Your task to perform on an android device: What's the news about the US economy? Image 0: 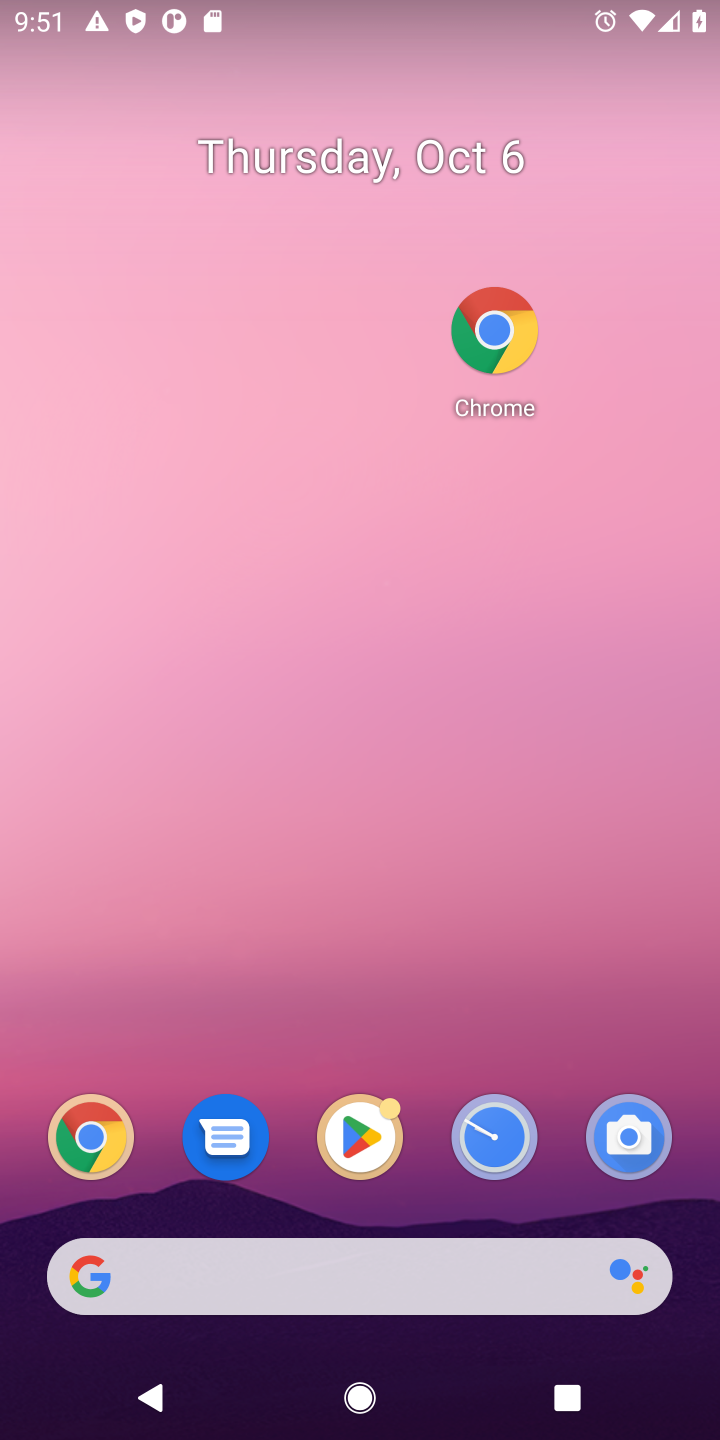
Step 0: click (194, 1265)
Your task to perform on an android device: What's the news about the US economy? Image 1: 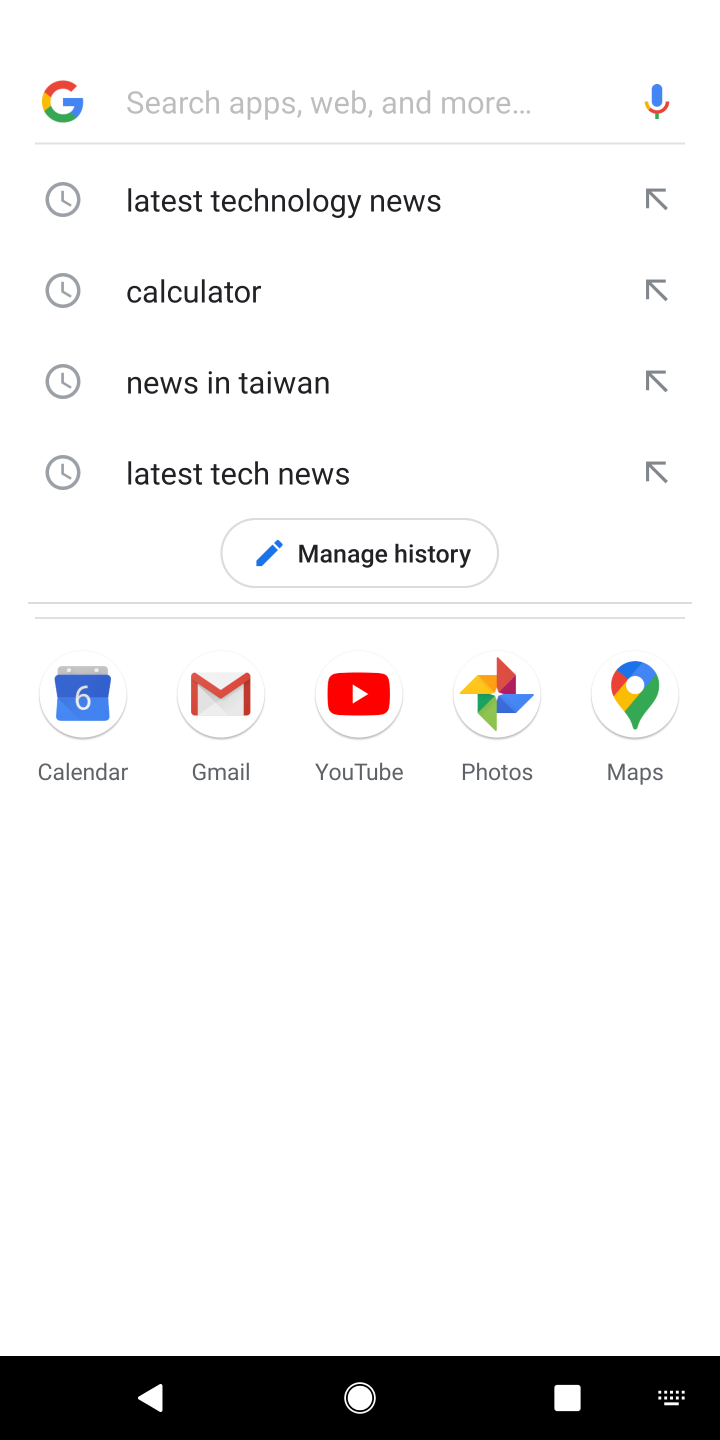
Step 1: type "news about the US economy"
Your task to perform on an android device: What's the news about the US economy? Image 2: 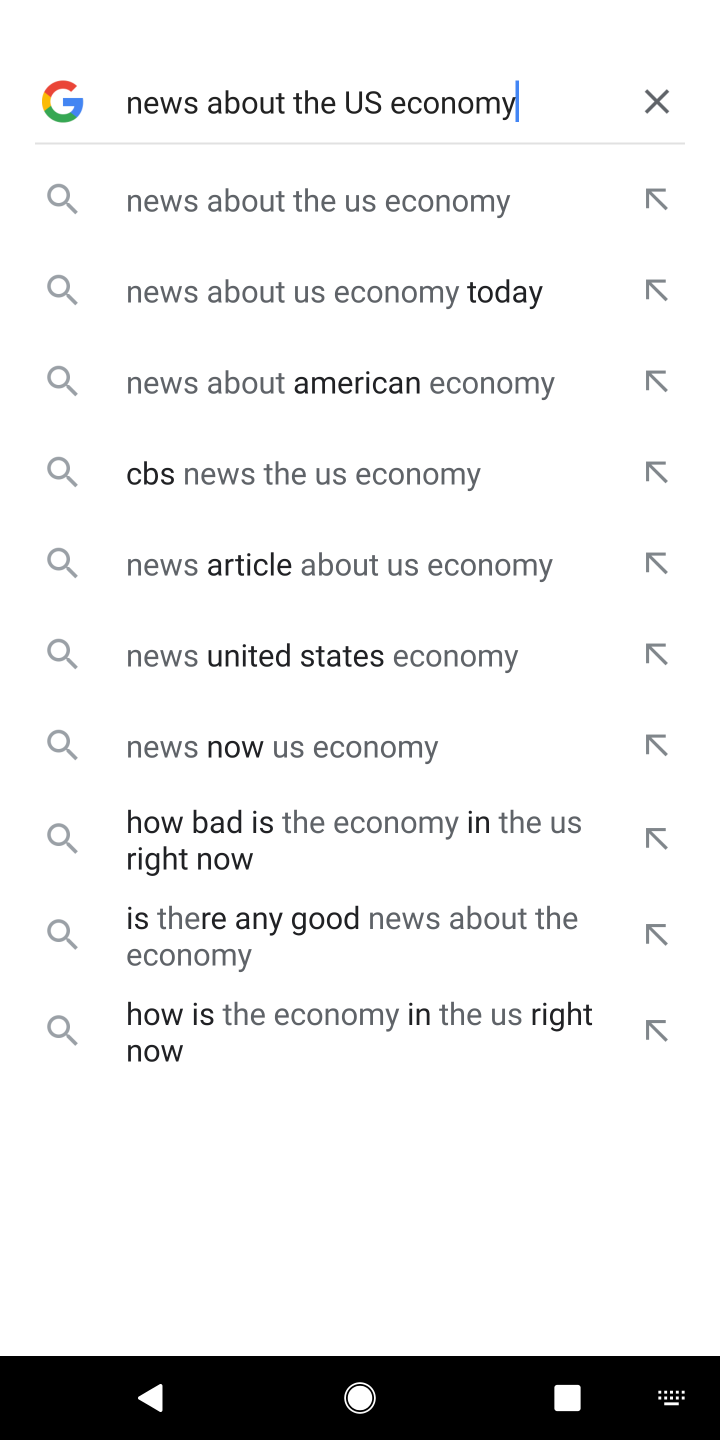
Step 2: click (375, 206)
Your task to perform on an android device: What's the news about the US economy? Image 3: 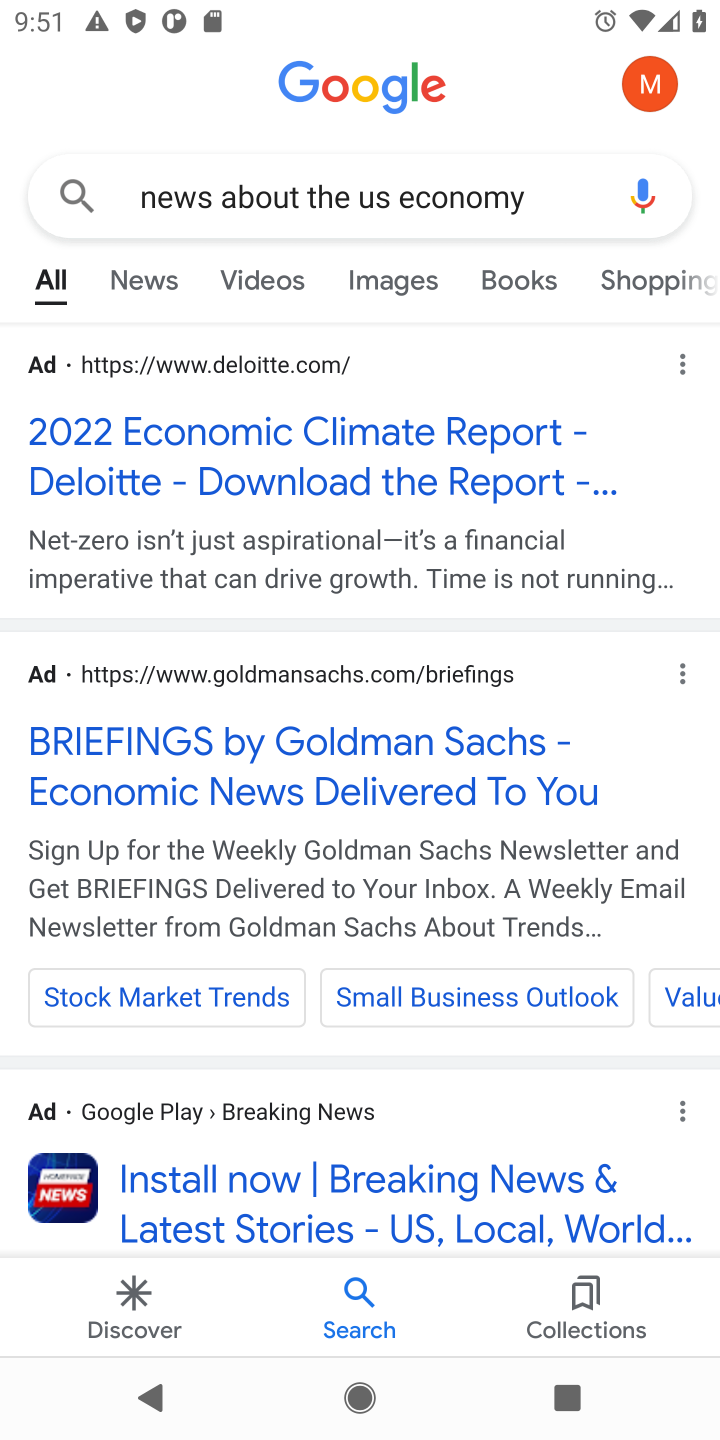
Step 3: click (229, 442)
Your task to perform on an android device: What's the news about the US economy? Image 4: 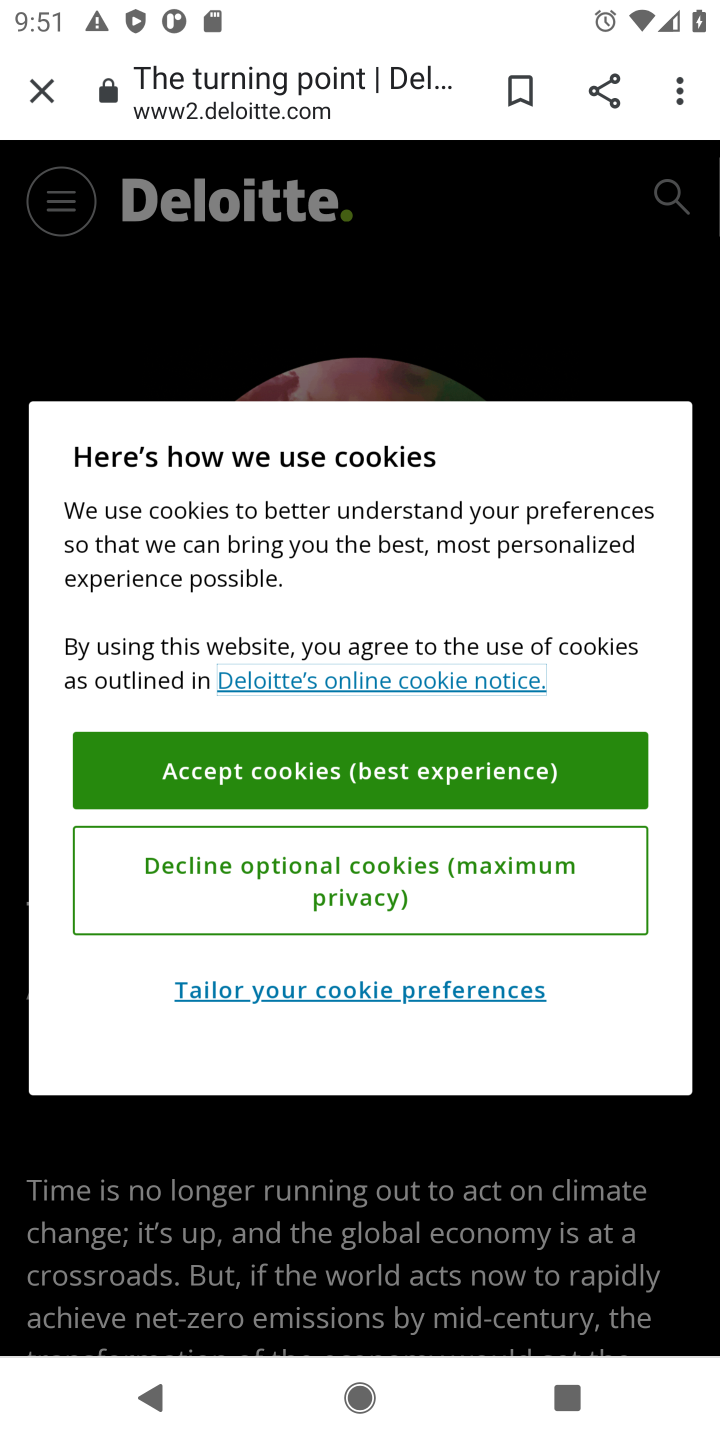
Step 4: task complete